Your task to perform on an android device: check out phone information Image 0: 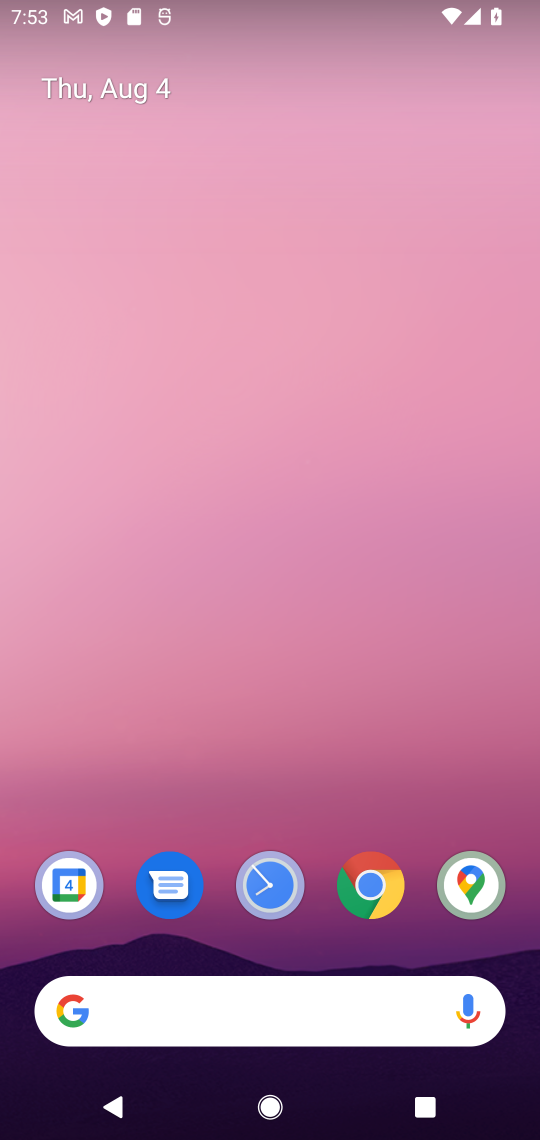
Step 0: drag from (347, 936) to (293, 47)
Your task to perform on an android device: check out phone information Image 1: 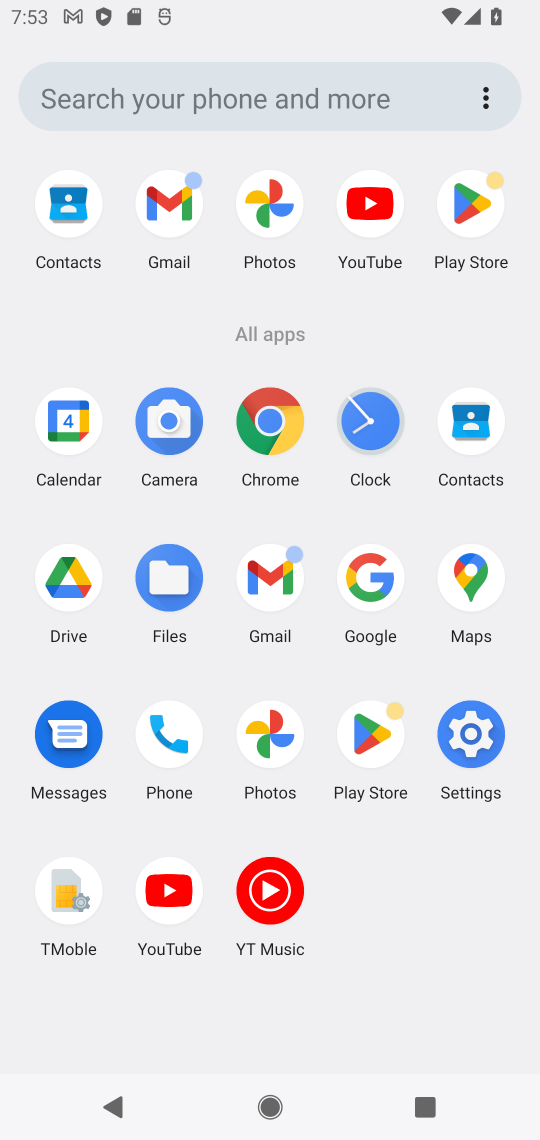
Step 1: click (167, 742)
Your task to perform on an android device: check out phone information Image 2: 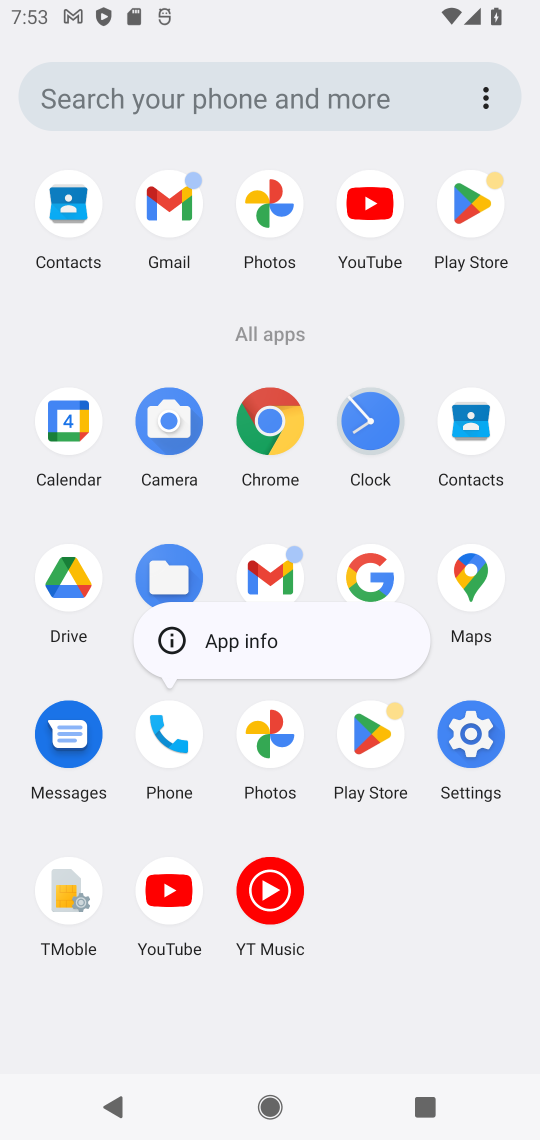
Step 2: click (189, 645)
Your task to perform on an android device: check out phone information Image 3: 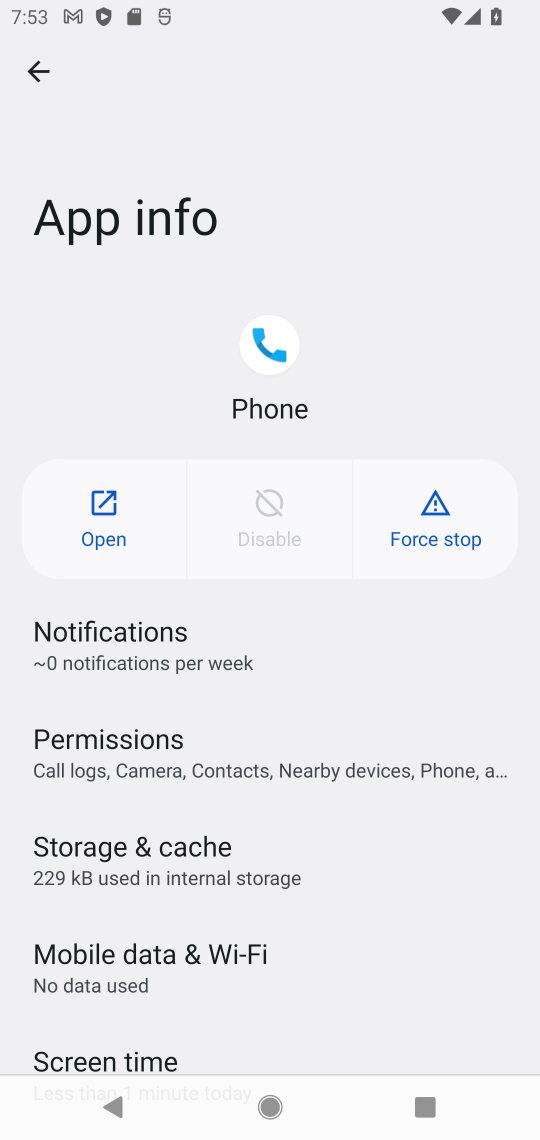
Step 3: task complete